Your task to perform on an android device: Go to battery settings Image 0: 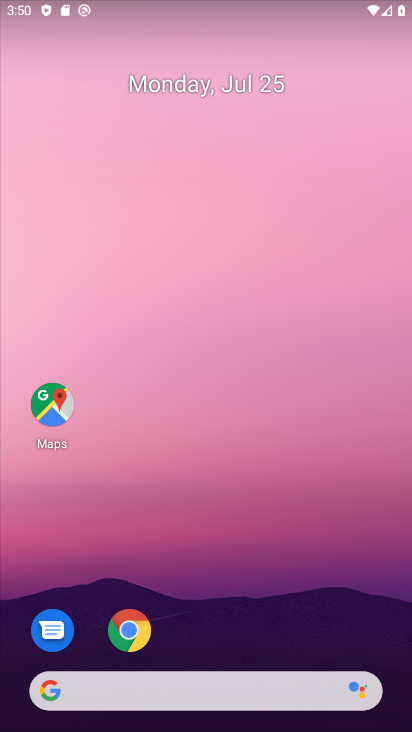
Step 0: drag from (242, 629) to (312, 38)
Your task to perform on an android device: Go to battery settings Image 1: 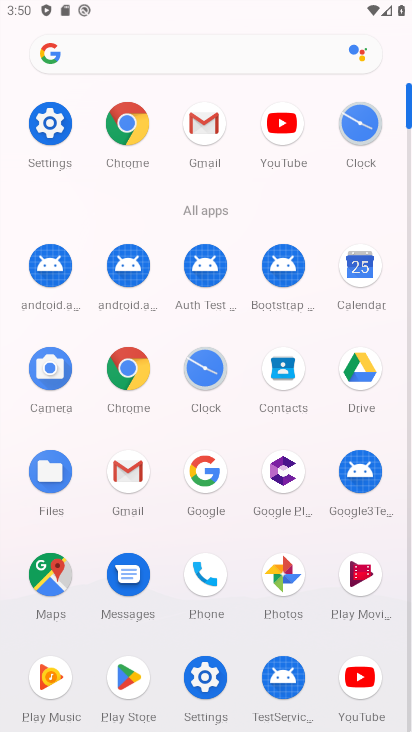
Step 1: click (52, 122)
Your task to perform on an android device: Go to battery settings Image 2: 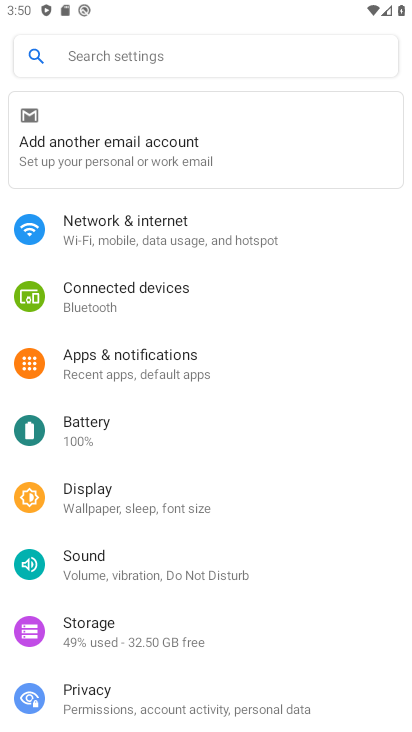
Step 2: click (182, 427)
Your task to perform on an android device: Go to battery settings Image 3: 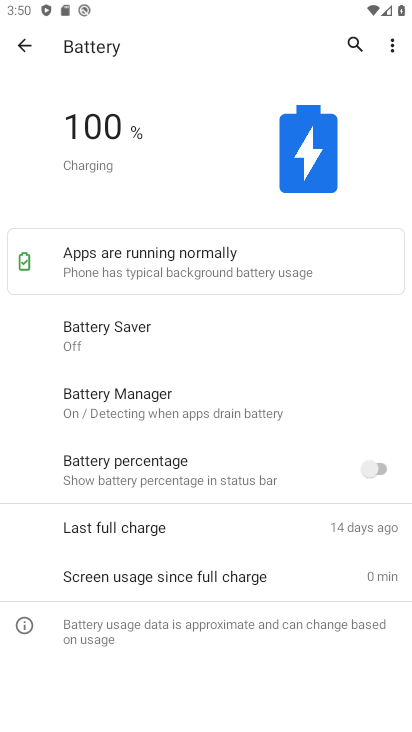
Step 3: task complete